Your task to perform on an android device: Open accessibility settings Image 0: 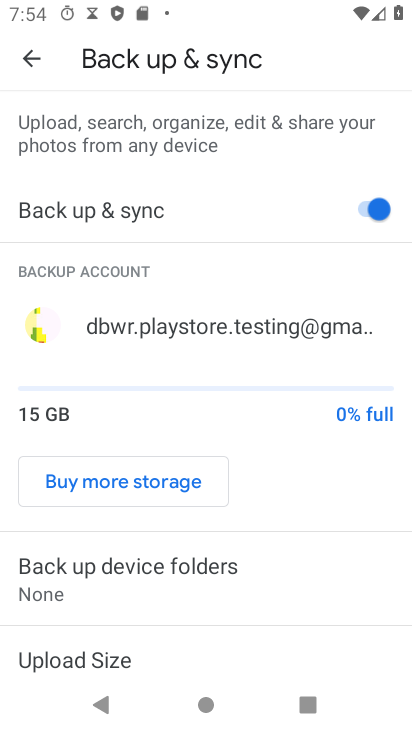
Step 0: press home button
Your task to perform on an android device: Open accessibility settings Image 1: 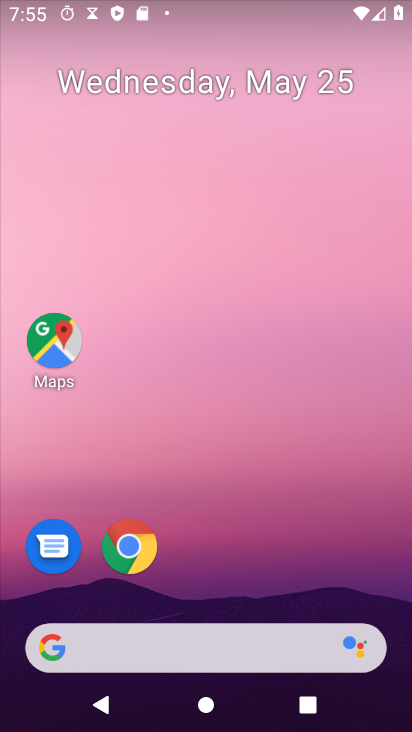
Step 1: drag from (210, 578) to (346, 0)
Your task to perform on an android device: Open accessibility settings Image 2: 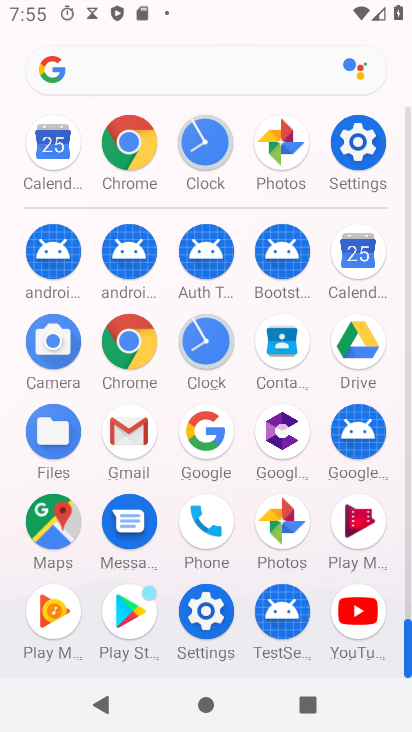
Step 2: click (361, 185)
Your task to perform on an android device: Open accessibility settings Image 3: 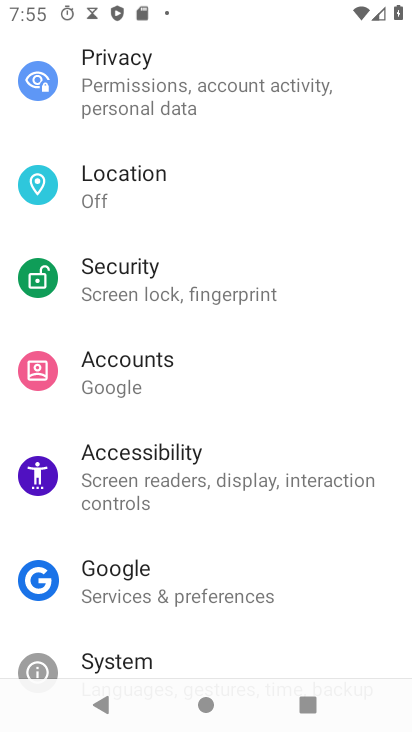
Step 3: drag from (174, 567) to (269, 377)
Your task to perform on an android device: Open accessibility settings Image 4: 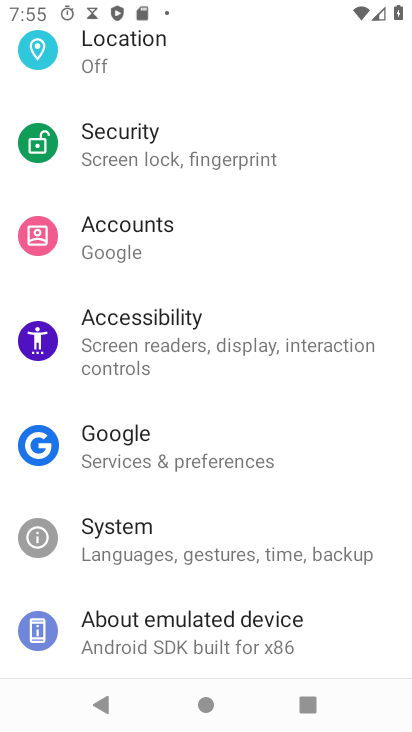
Step 4: click (191, 339)
Your task to perform on an android device: Open accessibility settings Image 5: 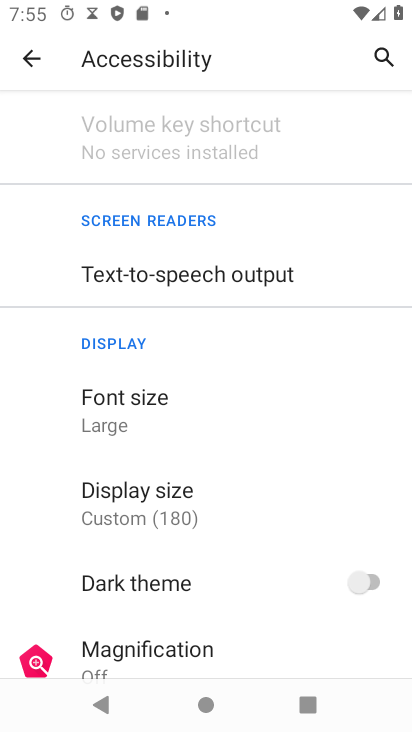
Step 5: task complete